Your task to perform on an android device: Open the web browser Image 0: 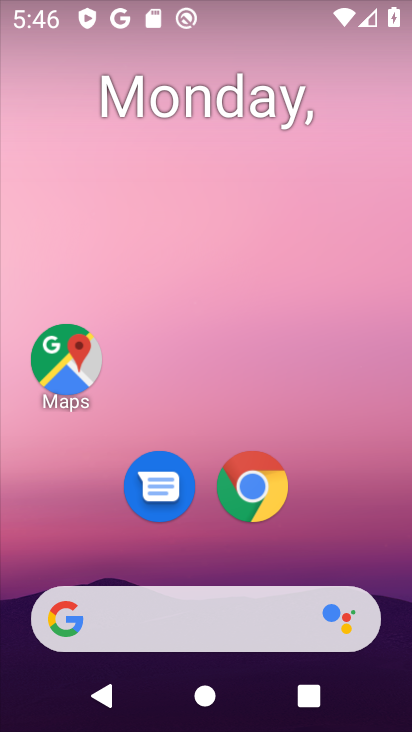
Step 0: click (263, 471)
Your task to perform on an android device: Open the web browser Image 1: 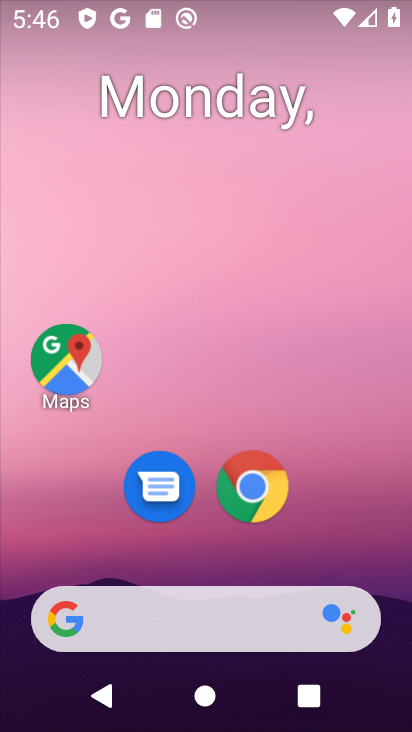
Step 1: click (252, 488)
Your task to perform on an android device: Open the web browser Image 2: 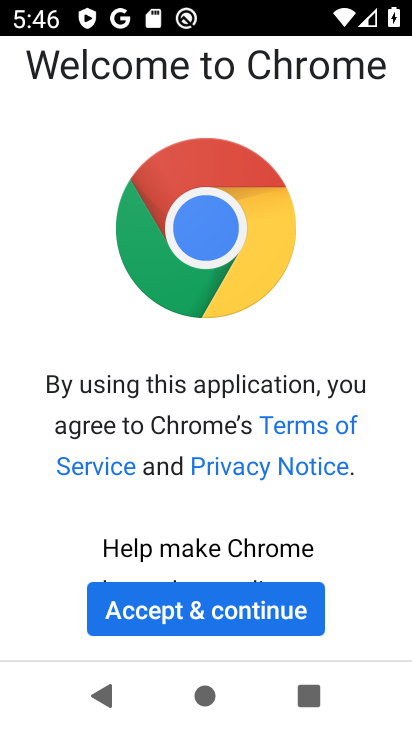
Step 2: click (212, 613)
Your task to perform on an android device: Open the web browser Image 3: 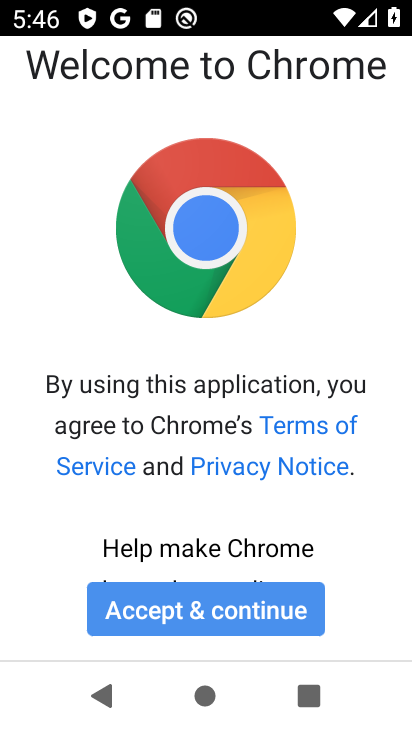
Step 3: click (212, 613)
Your task to perform on an android device: Open the web browser Image 4: 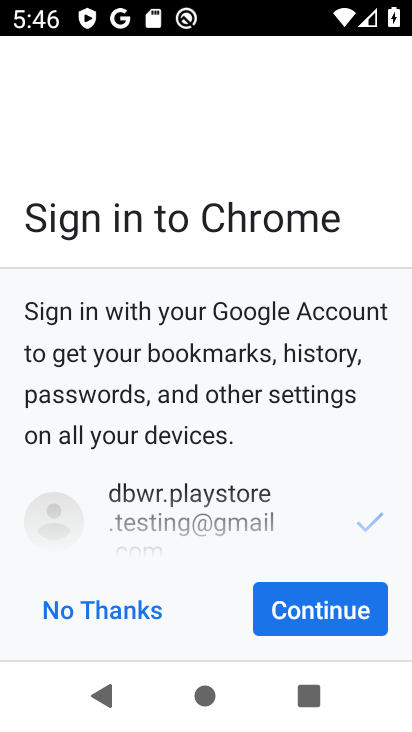
Step 4: click (354, 606)
Your task to perform on an android device: Open the web browser Image 5: 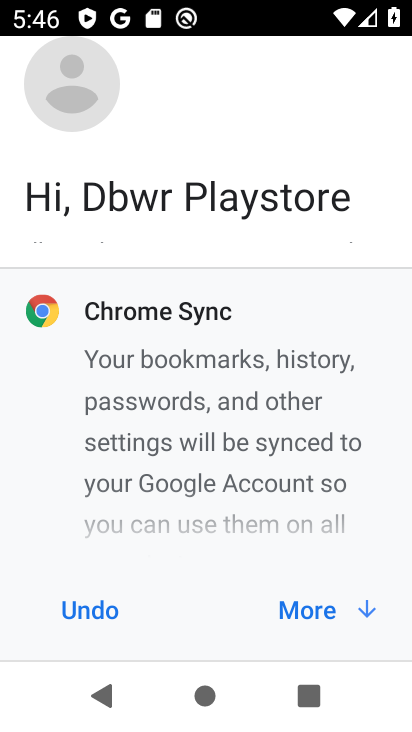
Step 5: click (337, 613)
Your task to perform on an android device: Open the web browser Image 6: 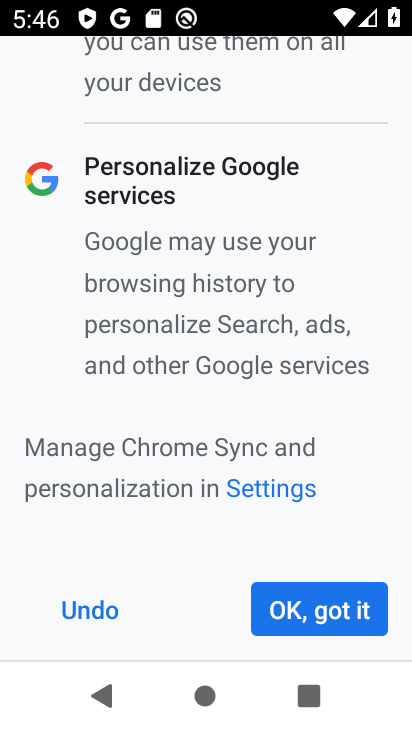
Step 6: click (337, 613)
Your task to perform on an android device: Open the web browser Image 7: 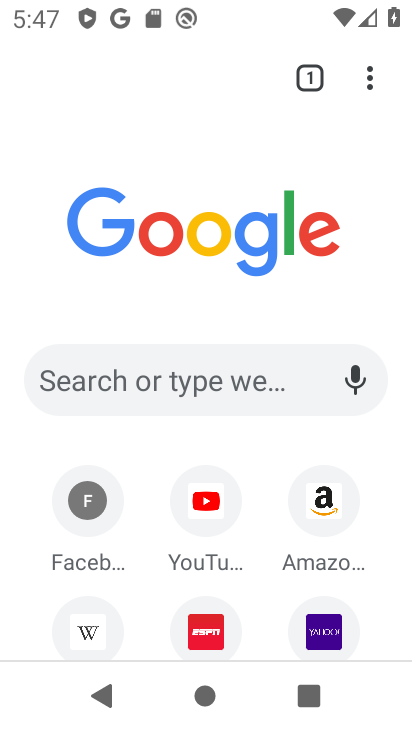
Step 7: click (241, 389)
Your task to perform on an android device: Open the web browser Image 8: 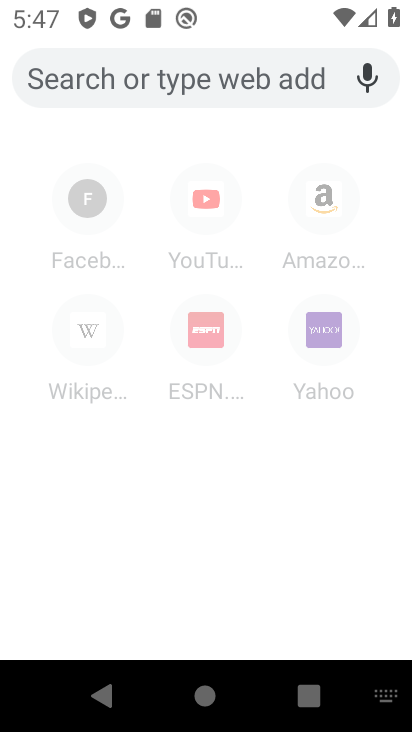
Step 8: type "web browser"
Your task to perform on an android device: Open the web browser Image 9: 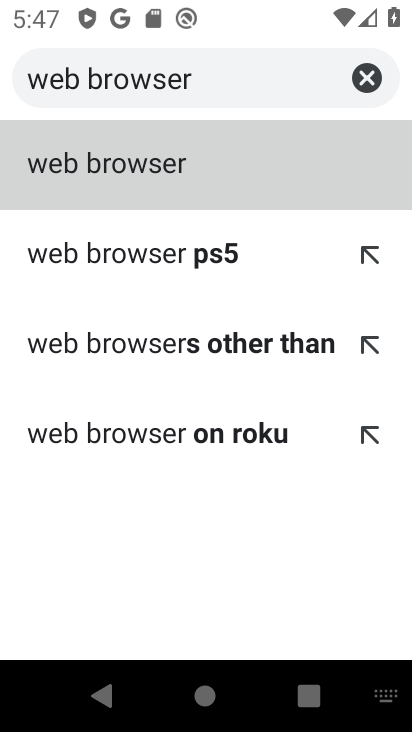
Step 9: click (136, 170)
Your task to perform on an android device: Open the web browser Image 10: 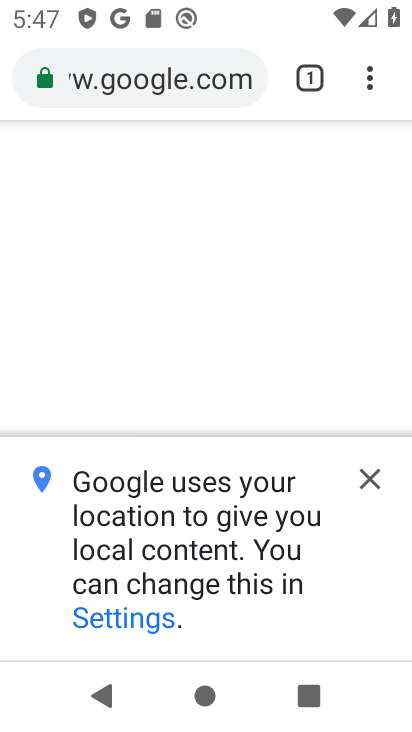
Step 10: task complete